Your task to perform on an android device: Go to location settings Image 0: 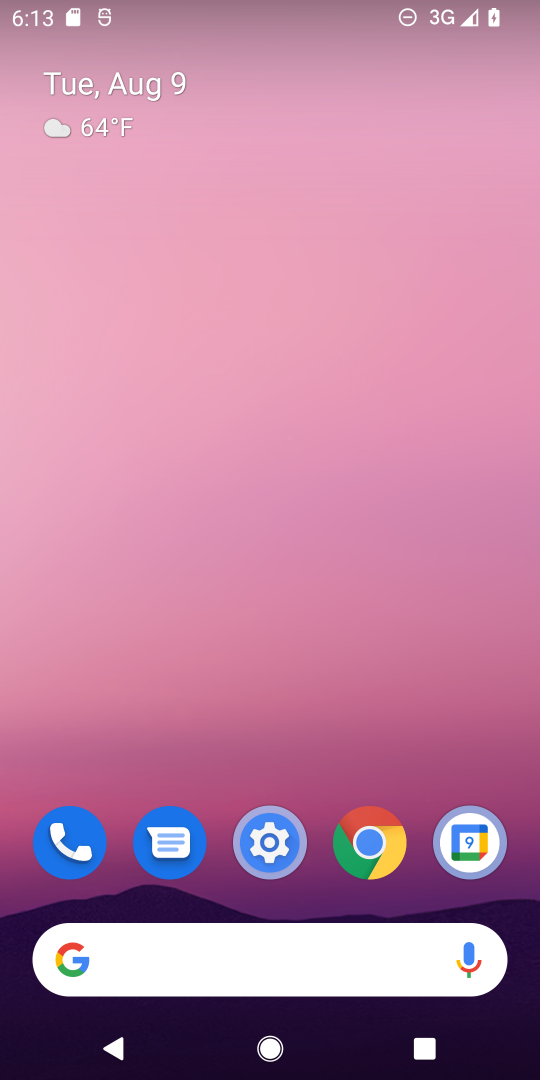
Step 0: drag from (328, 680) to (209, 12)
Your task to perform on an android device: Go to location settings Image 1: 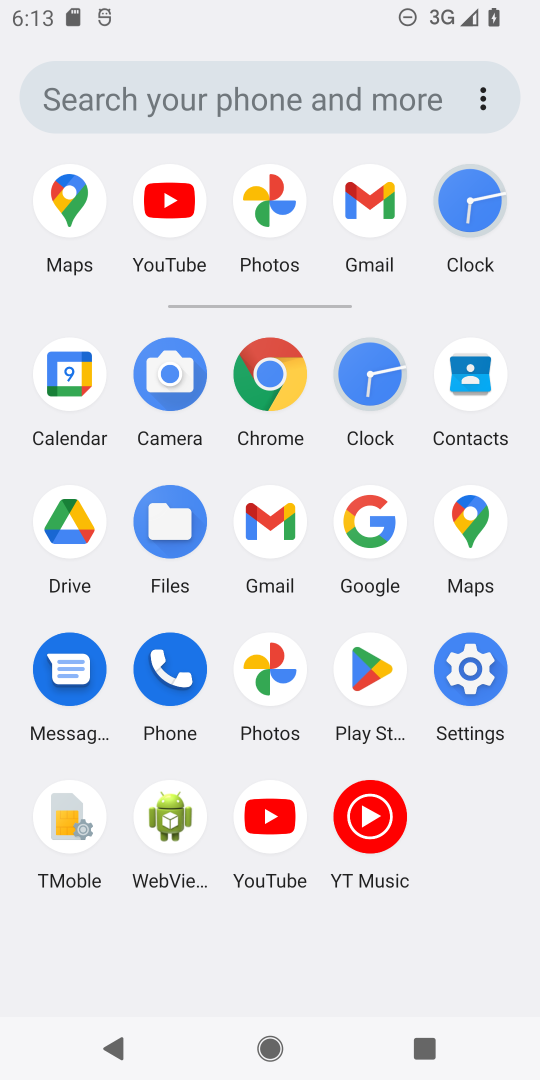
Step 1: click (458, 680)
Your task to perform on an android device: Go to location settings Image 2: 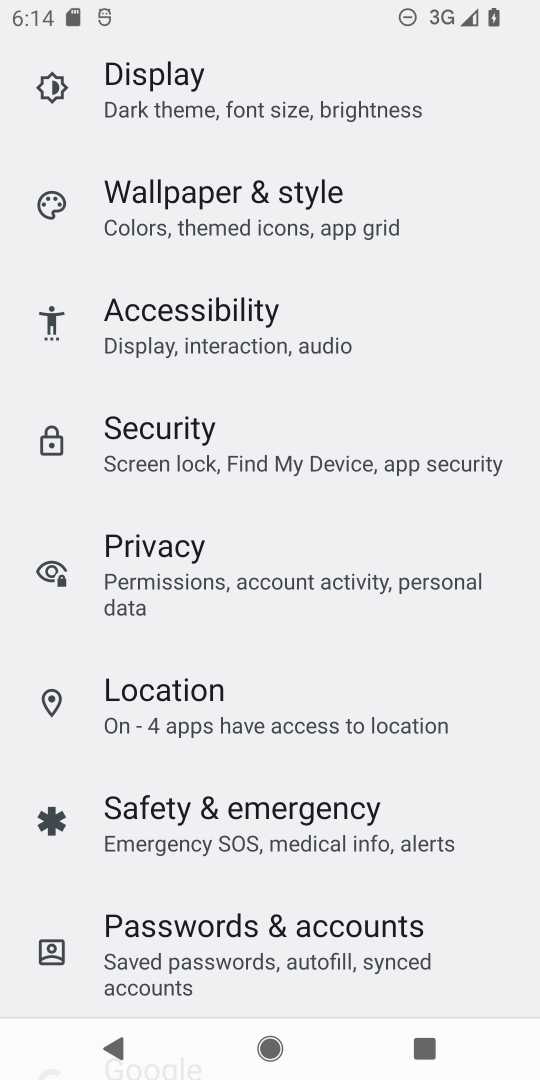
Step 2: click (213, 716)
Your task to perform on an android device: Go to location settings Image 3: 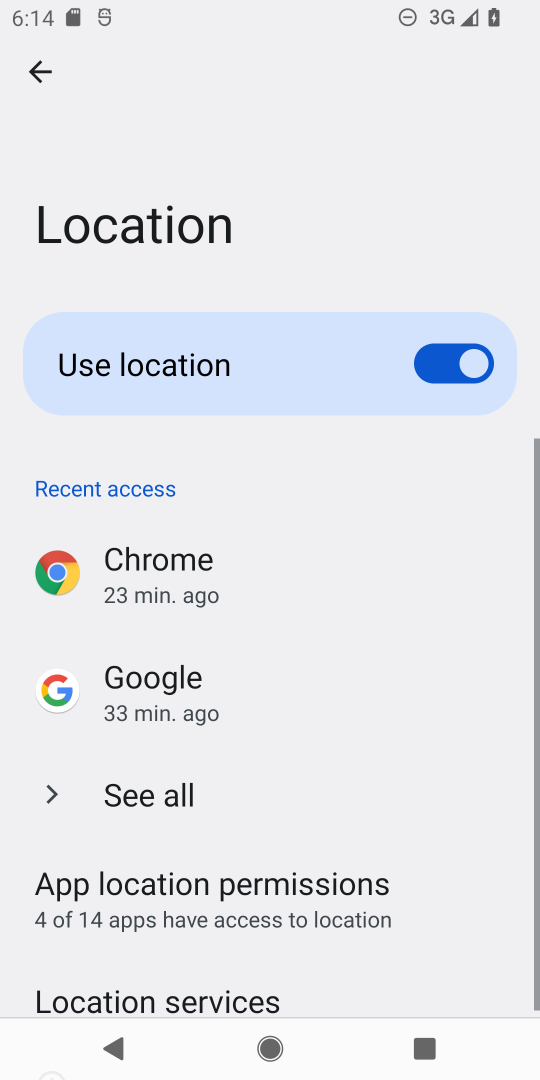
Step 3: task complete